Your task to perform on an android device: turn pop-ups off in chrome Image 0: 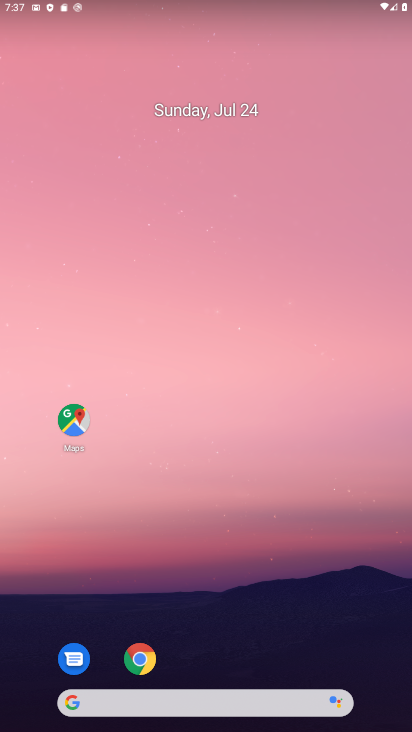
Step 0: click (114, 124)
Your task to perform on an android device: turn pop-ups off in chrome Image 1: 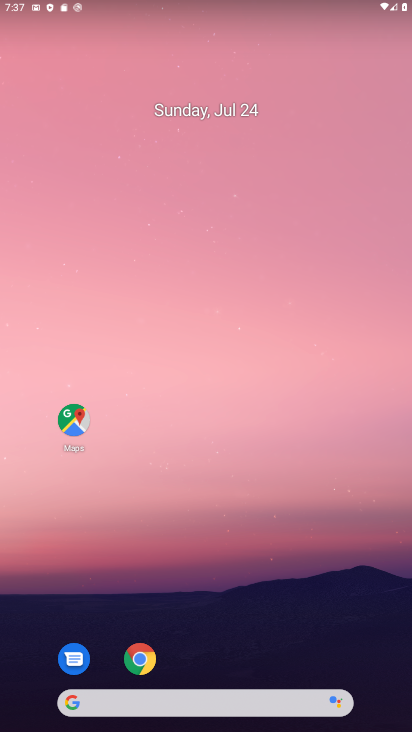
Step 1: drag from (196, 271) to (279, 155)
Your task to perform on an android device: turn pop-ups off in chrome Image 2: 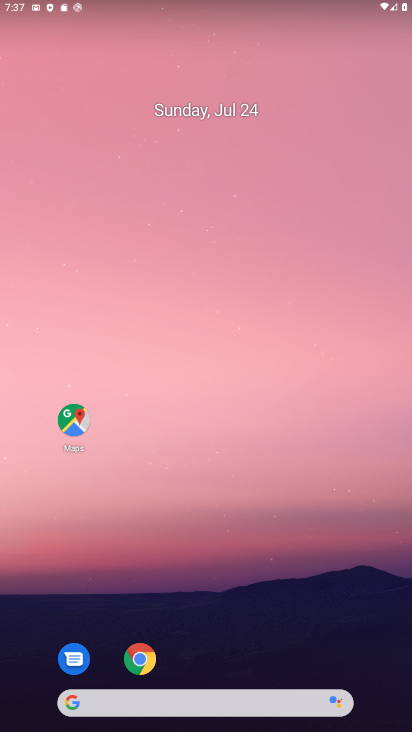
Step 2: drag from (278, 580) to (159, 167)
Your task to perform on an android device: turn pop-ups off in chrome Image 3: 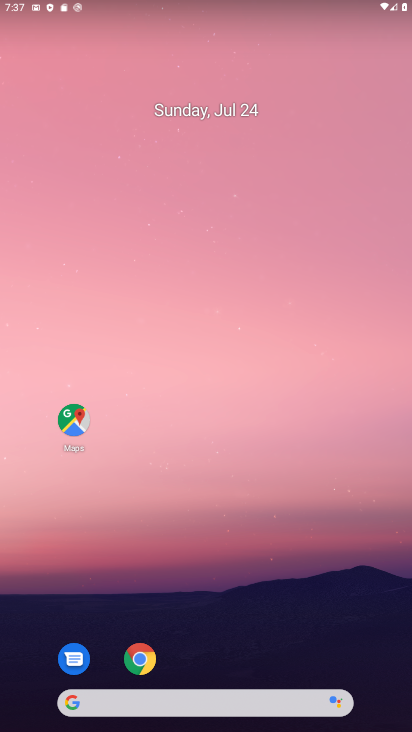
Step 3: drag from (248, 593) to (202, 231)
Your task to perform on an android device: turn pop-ups off in chrome Image 4: 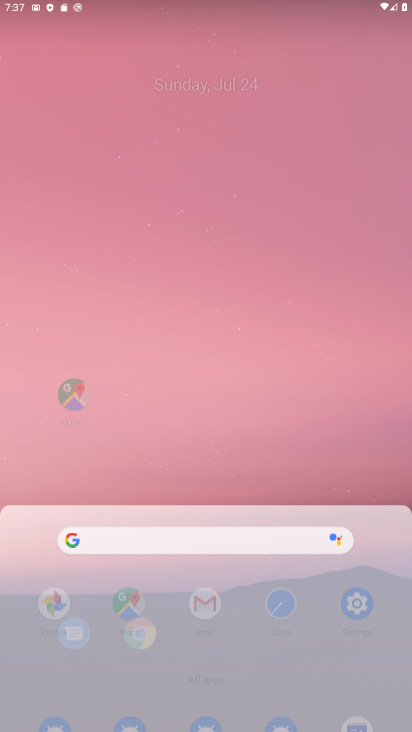
Step 4: drag from (213, 598) to (177, 135)
Your task to perform on an android device: turn pop-ups off in chrome Image 5: 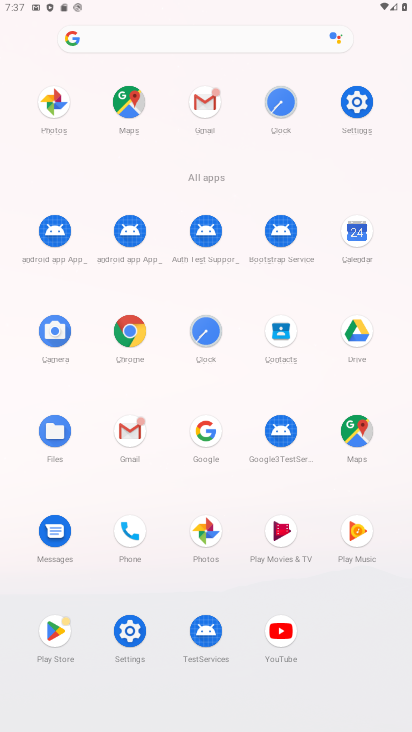
Step 5: drag from (181, 436) to (167, 314)
Your task to perform on an android device: turn pop-ups off in chrome Image 6: 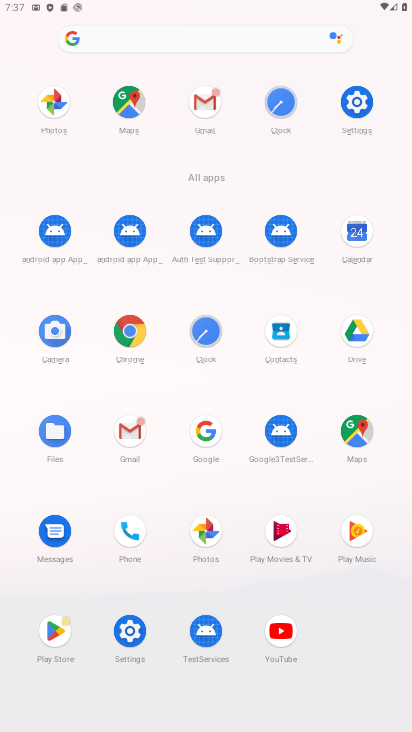
Step 6: click (129, 331)
Your task to perform on an android device: turn pop-ups off in chrome Image 7: 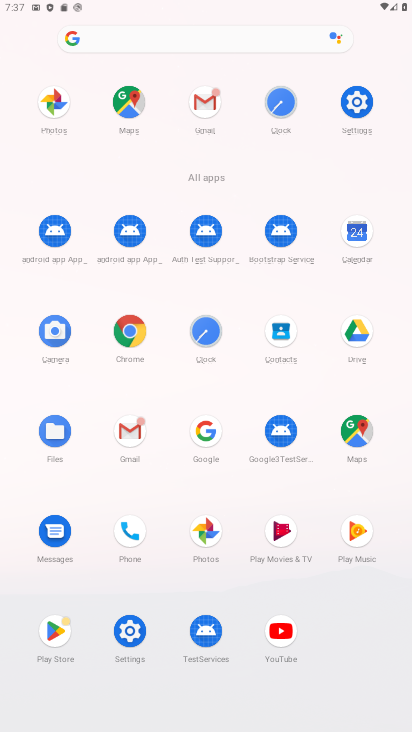
Step 7: click (129, 331)
Your task to perform on an android device: turn pop-ups off in chrome Image 8: 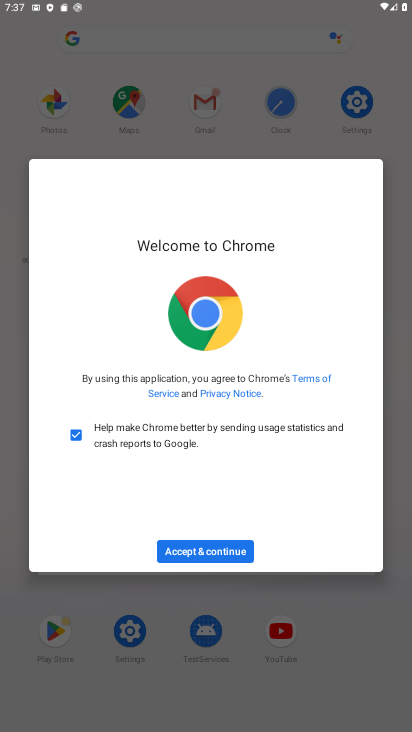
Step 8: click (205, 556)
Your task to perform on an android device: turn pop-ups off in chrome Image 9: 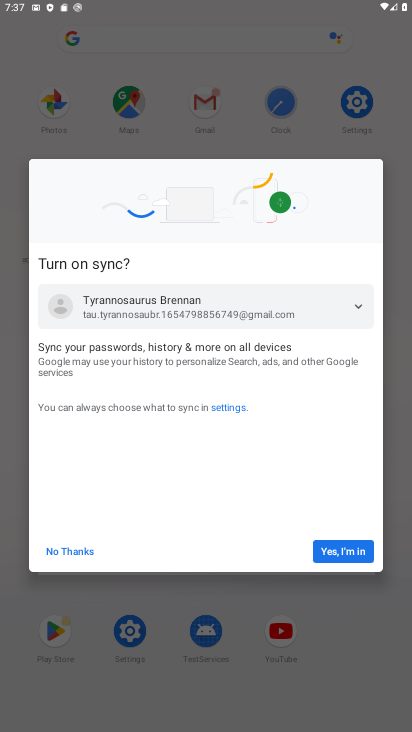
Step 9: click (68, 542)
Your task to perform on an android device: turn pop-ups off in chrome Image 10: 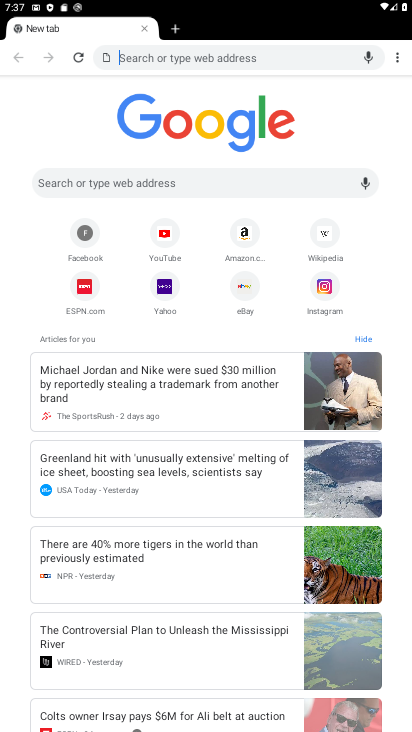
Step 10: drag from (398, 56) to (273, 272)
Your task to perform on an android device: turn pop-ups off in chrome Image 11: 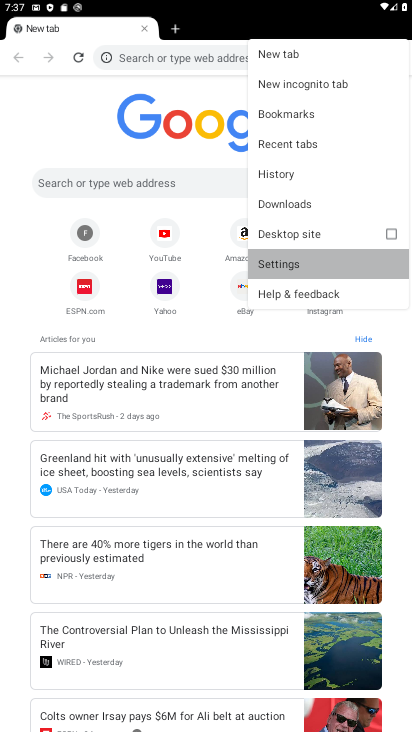
Step 11: click (273, 272)
Your task to perform on an android device: turn pop-ups off in chrome Image 12: 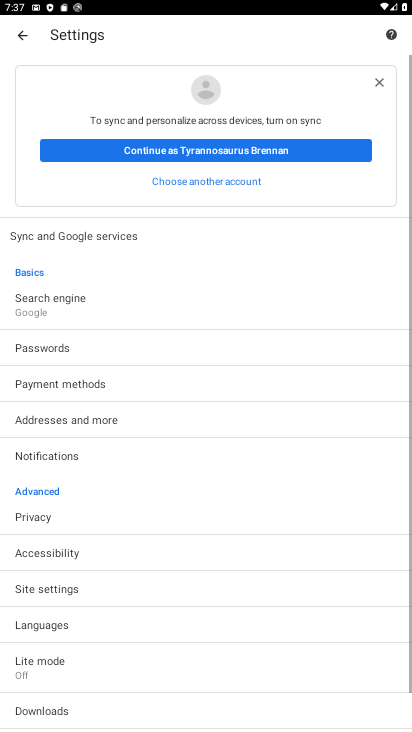
Step 12: drag from (63, 640) to (12, 170)
Your task to perform on an android device: turn pop-ups off in chrome Image 13: 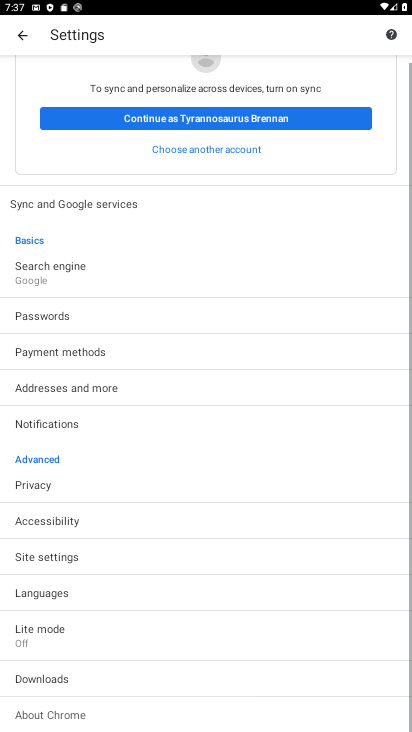
Step 13: drag from (1, 546) to (49, 321)
Your task to perform on an android device: turn pop-ups off in chrome Image 14: 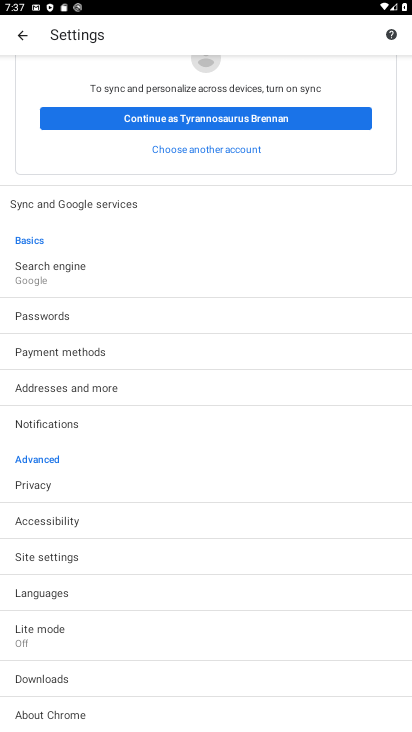
Step 14: click (45, 552)
Your task to perform on an android device: turn pop-ups off in chrome Image 15: 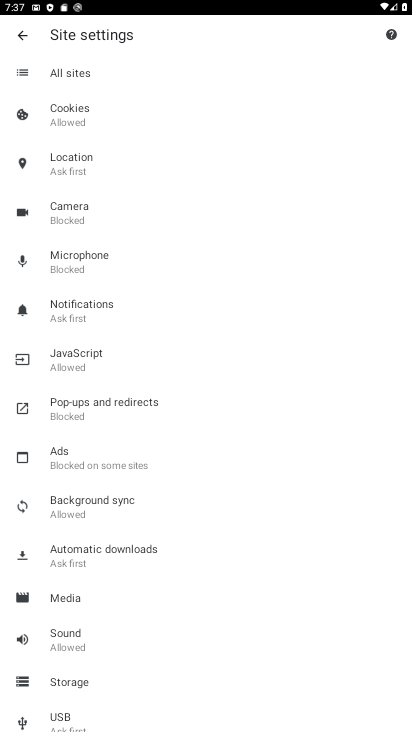
Step 15: click (70, 399)
Your task to perform on an android device: turn pop-ups off in chrome Image 16: 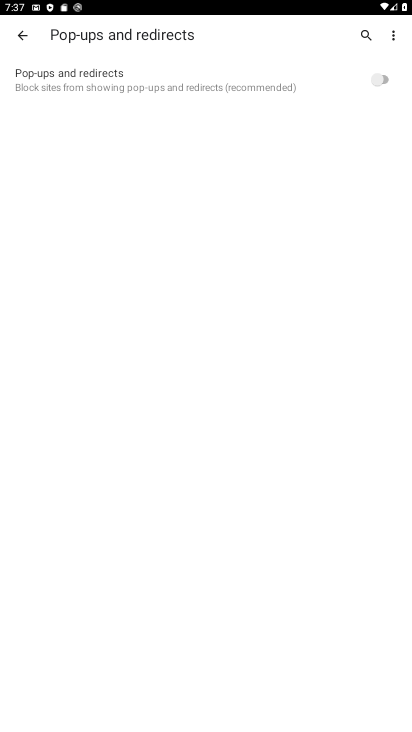
Step 16: task complete